Your task to perform on an android device: toggle notification dots Image 0: 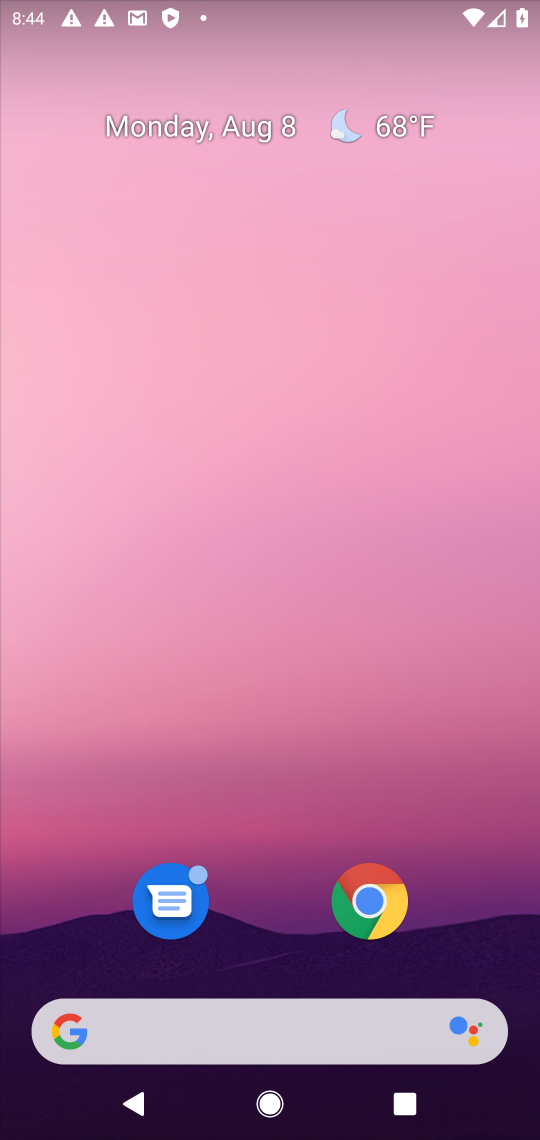
Step 0: drag from (250, 216) to (250, 0)
Your task to perform on an android device: toggle notification dots Image 1: 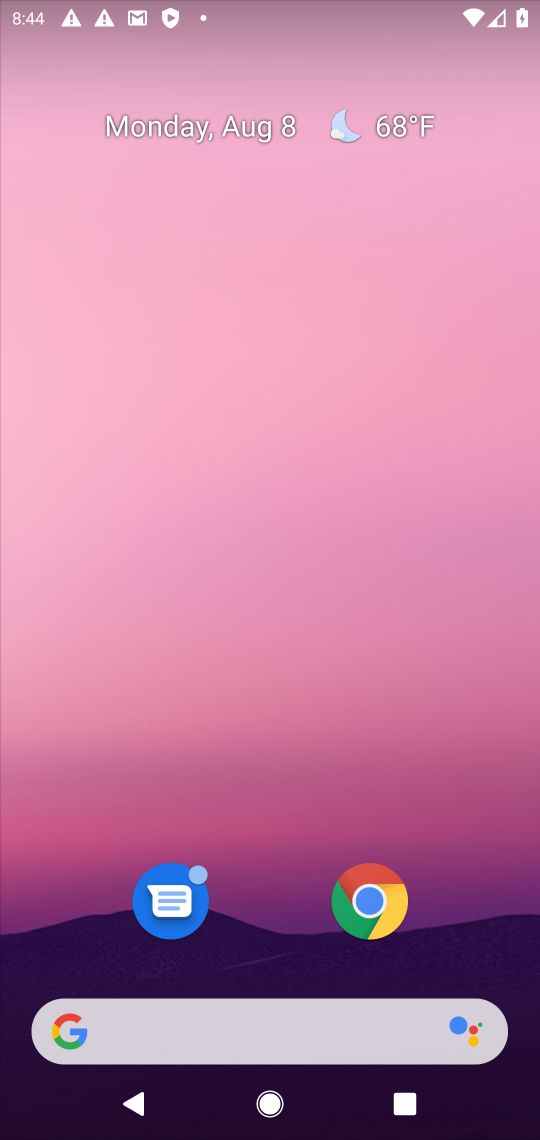
Step 1: drag from (245, 726) to (245, 95)
Your task to perform on an android device: toggle notification dots Image 2: 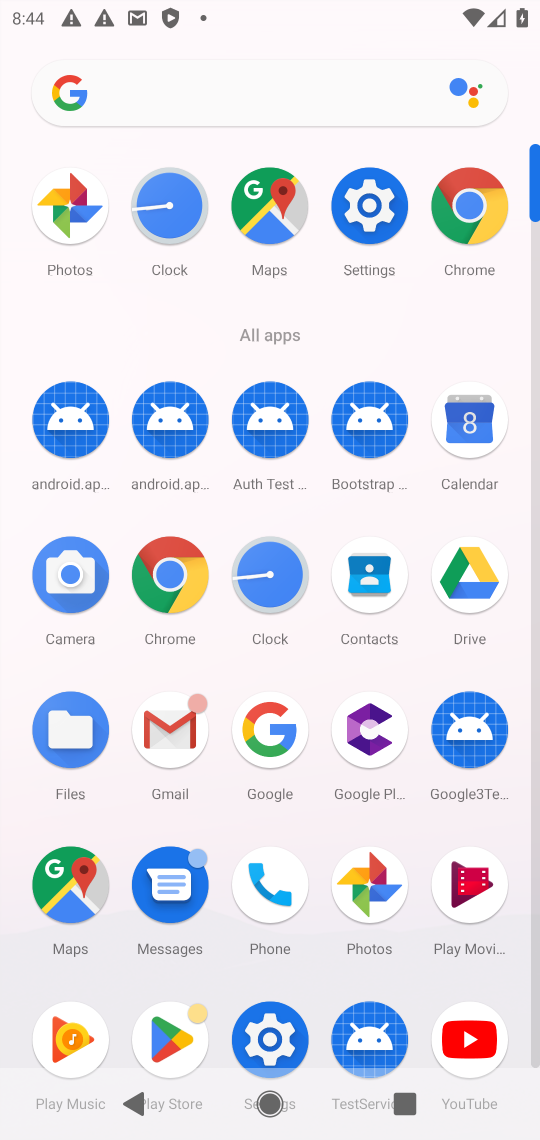
Step 2: click (271, 1040)
Your task to perform on an android device: toggle notification dots Image 3: 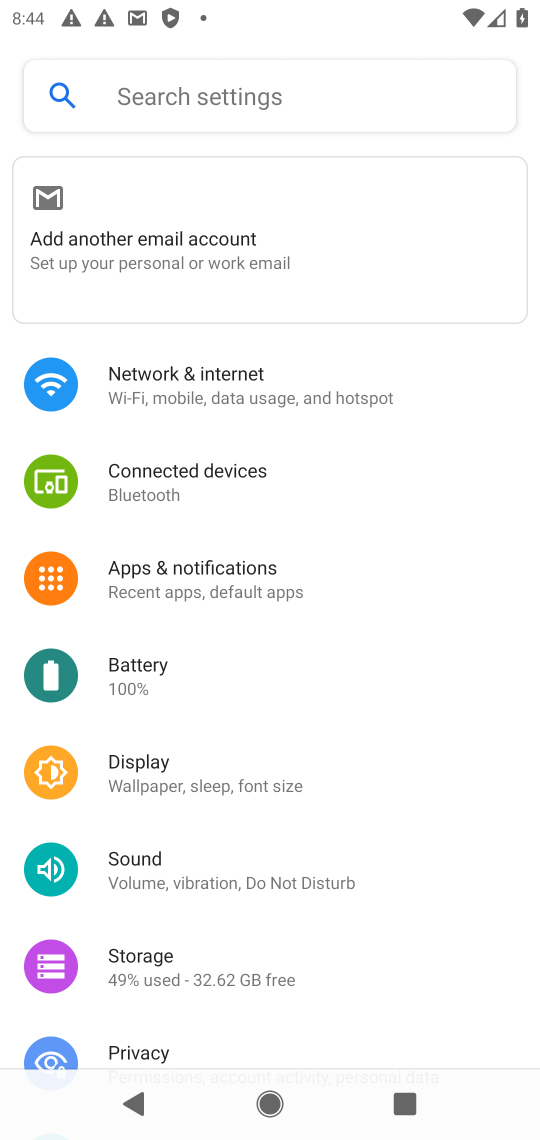
Step 3: drag from (212, 961) to (215, 427)
Your task to perform on an android device: toggle notification dots Image 4: 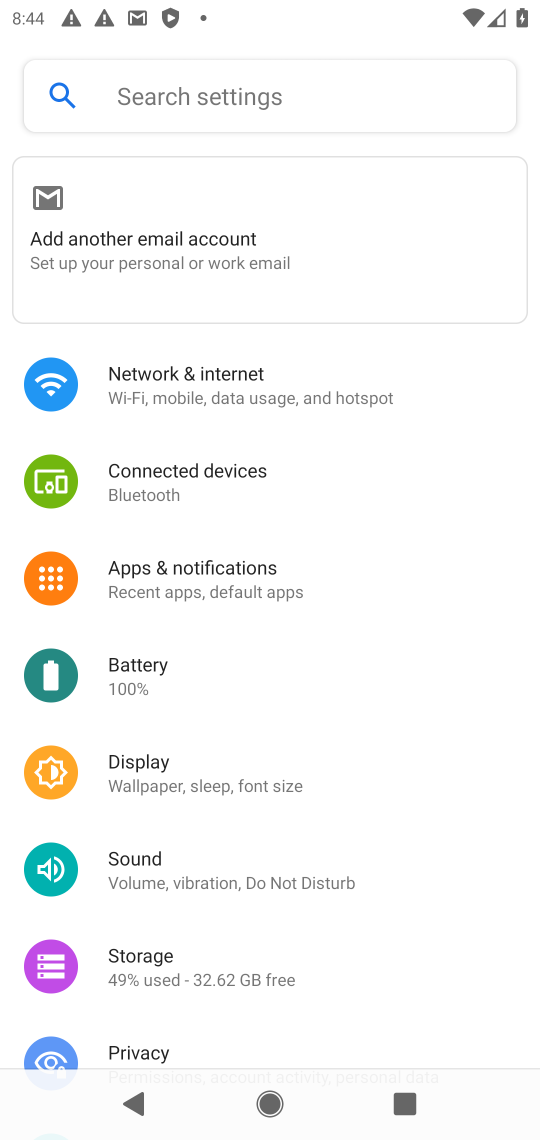
Step 4: drag from (166, 781) to (164, 572)
Your task to perform on an android device: toggle notification dots Image 5: 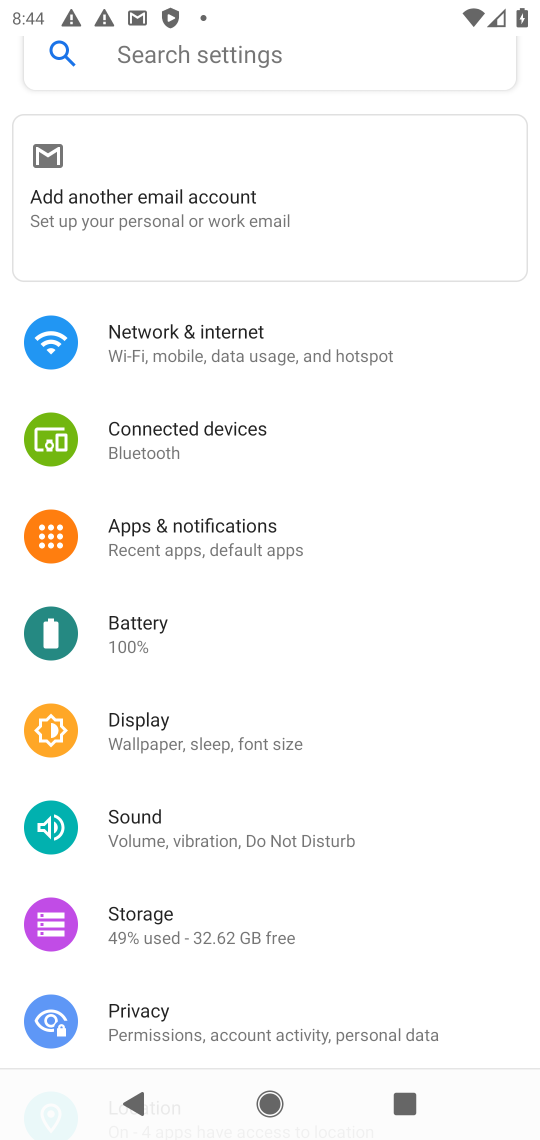
Step 5: drag from (152, 975) to (201, 618)
Your task to perform on an android device: toggle notification dots Image 6: 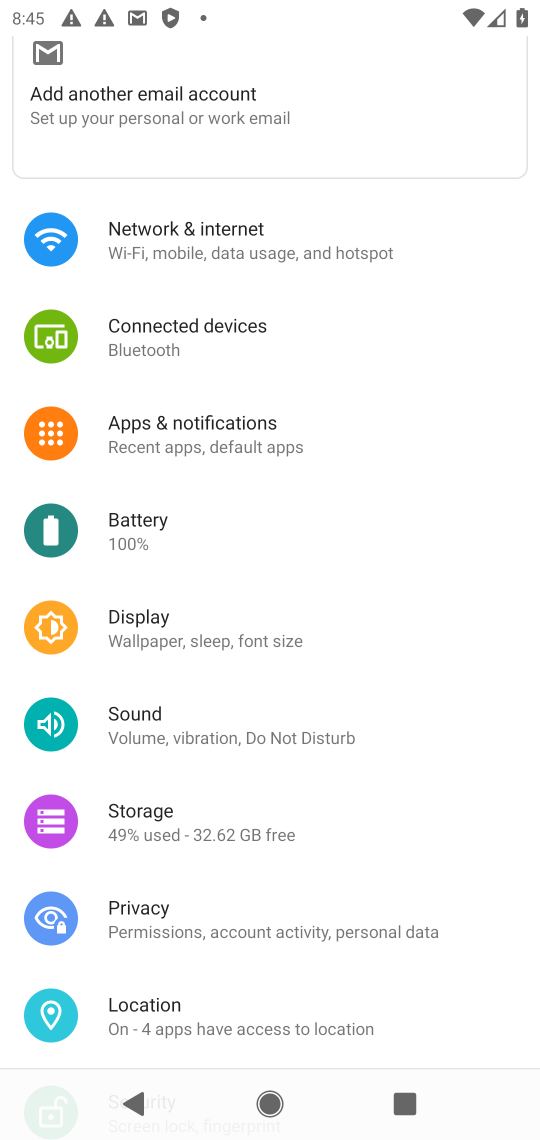
Step 6: click (204, 453)
Your task to perform on an android device: toggle notification dots Image 7: 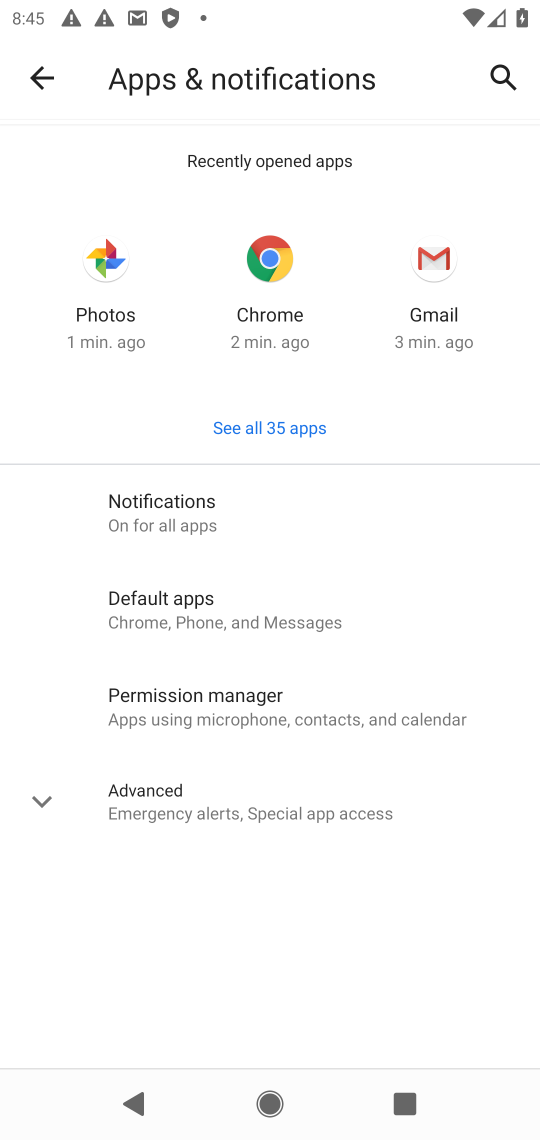
Step 7: click (160, 497)
Your task to perform on an android device: toggle notification dots Image 8: 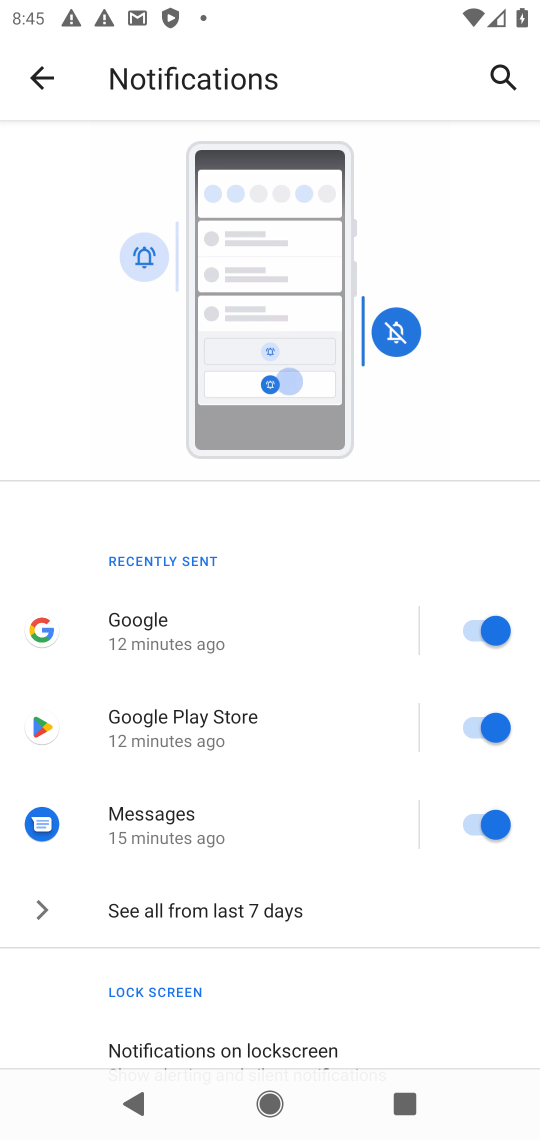
Step 8: drag from (298, 691) to (330, 505)
Your task to perform on an android device: toggle notification dots Image 9: 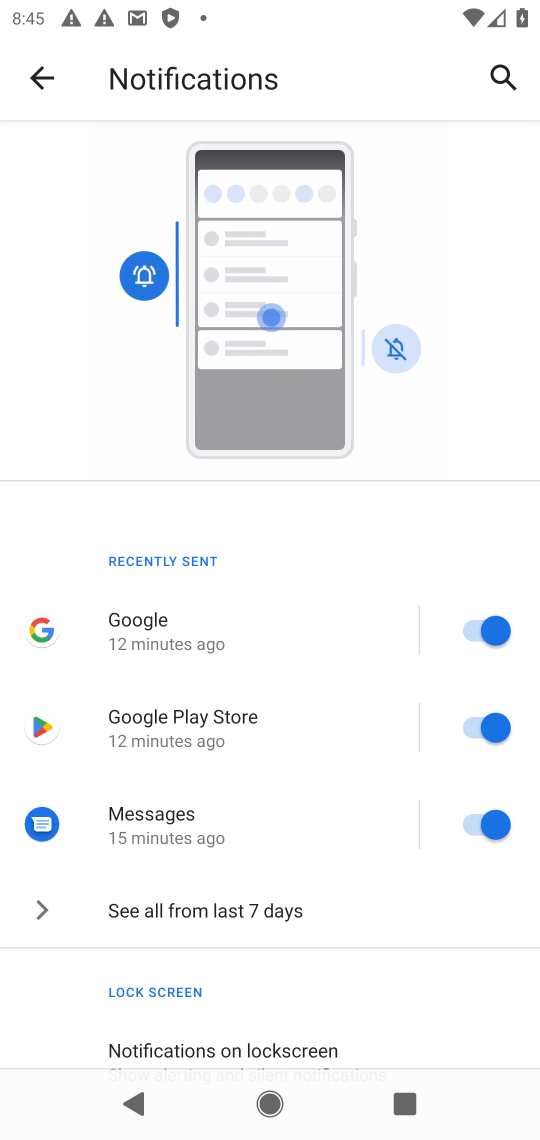
Step 9: drag from (163, 865) to (178, 591)
Your task to perform on an android device: toggle notification dots Image 10: 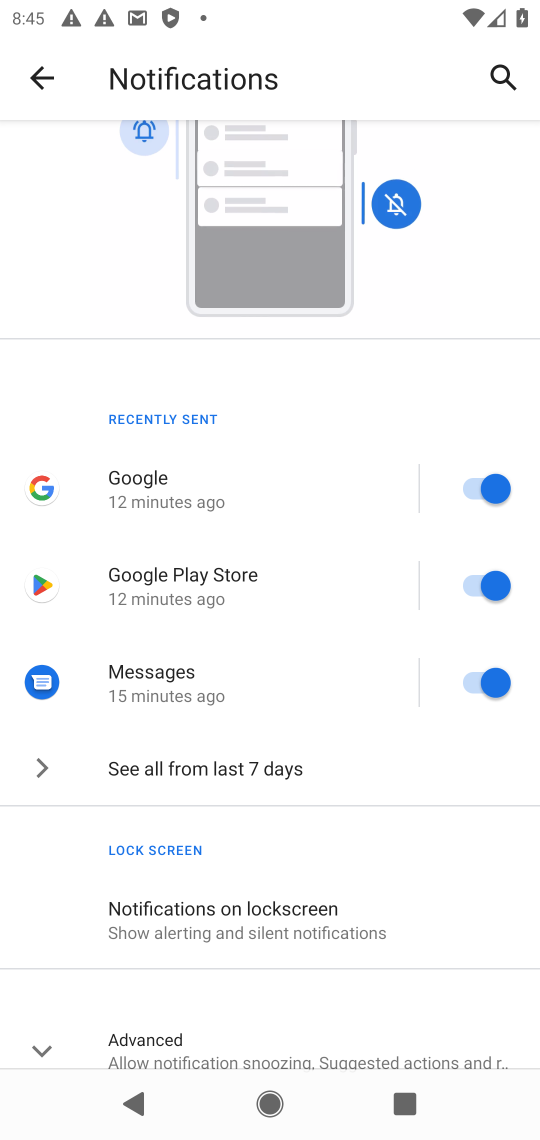
Step 10: click (158, 1050)
Your task to perform on an android device: toggle notification dots Image 11: 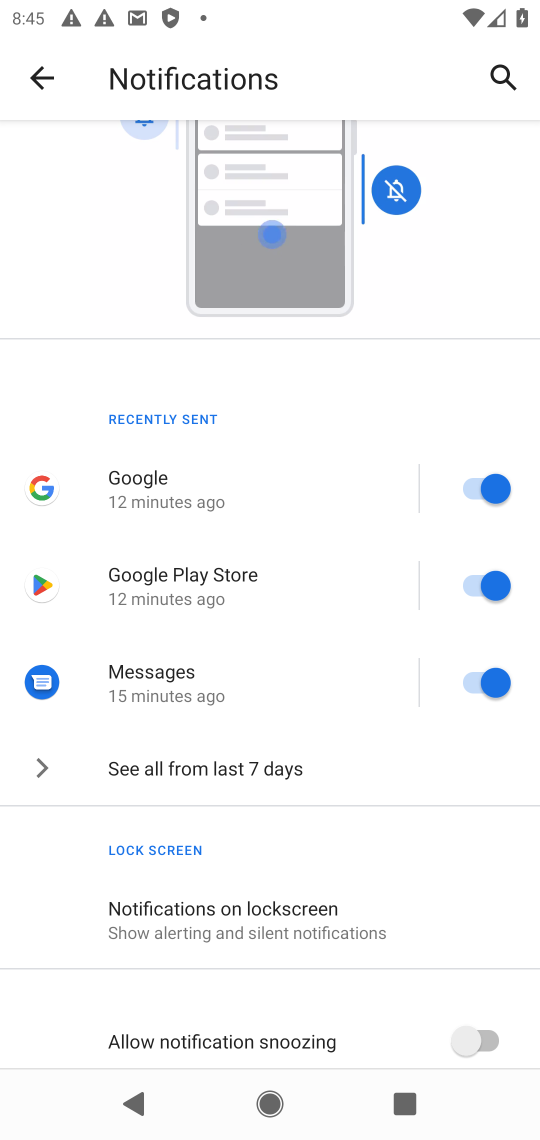
Step 11: drag from (226, 898) to (248, 324)
Your task to perform on an android device: toggle notification dots Image 12: 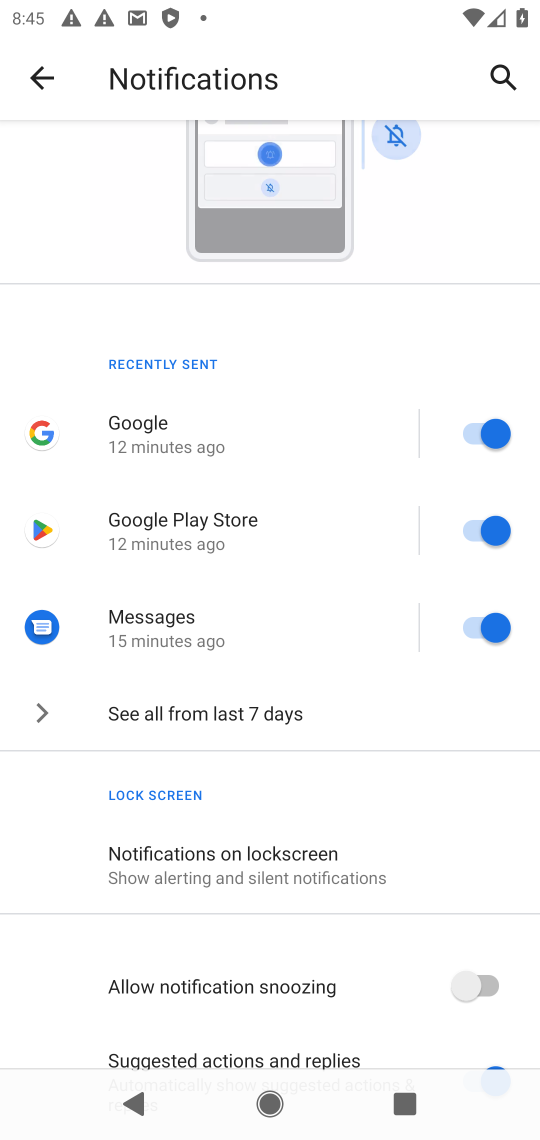
Step 12: drag from (161, 935) to (209, 577)
Your task to perform on an android device: toggle notification dots Image 13: 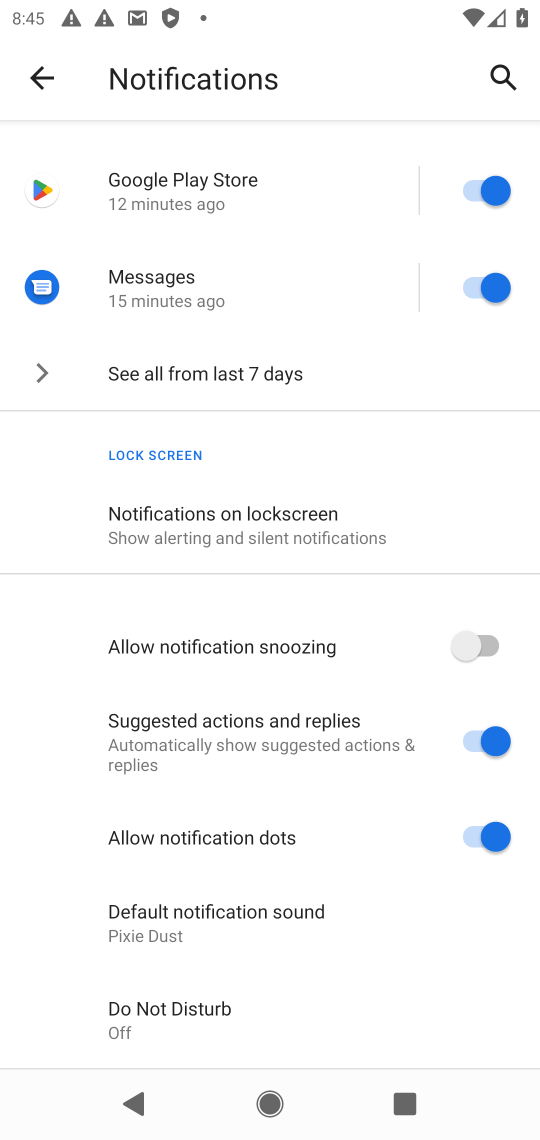
Step 13: click (463, 837)
Your task to perform on an android device: toggle notification dots Image 14: 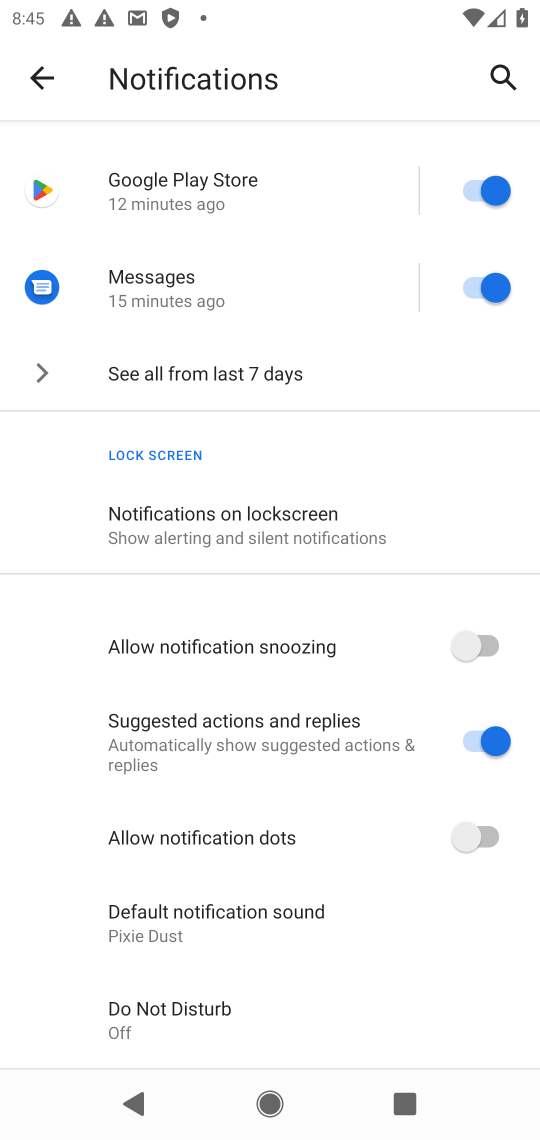
Step 14: task complete